Your task to perform on an android device: Open the Play Movies app and select the watchlist tab. Image 0: 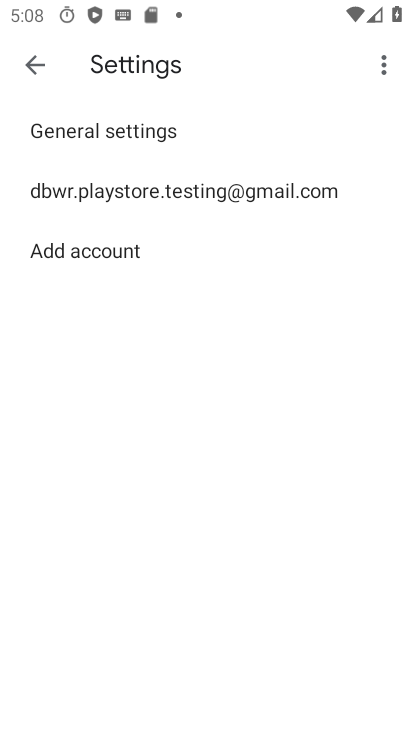
Step 0: press home button
Your task to perform on an android device: Open the Play Movies app and select the watchlist tab. Image 1: 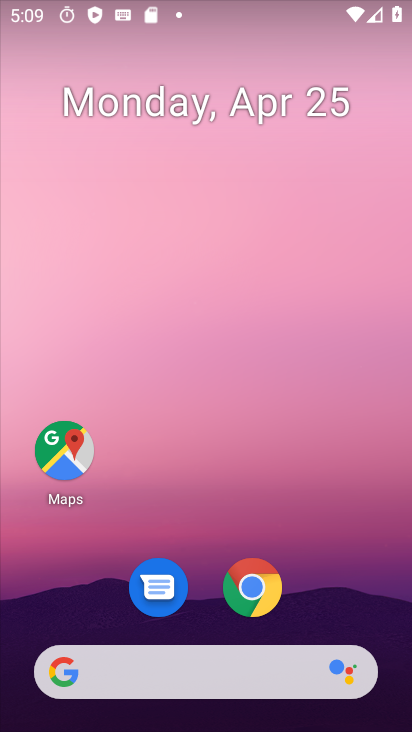
Step 1: drag from (330, 568) to (353, 70)
Your task to perform on an android device: Open the Play Movies app and select the watchlist tab. Image 2: 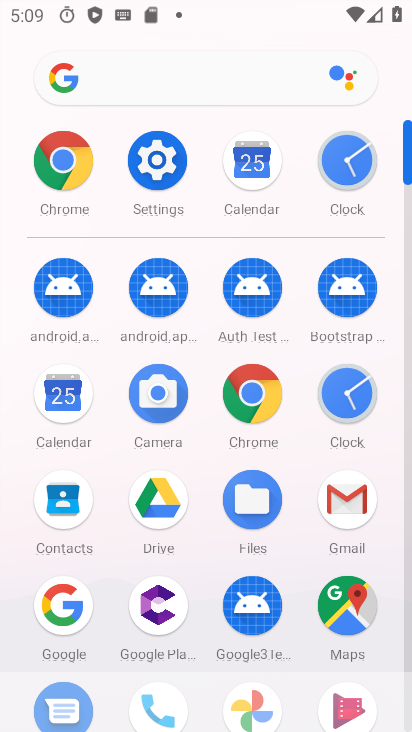
Step 2: drag from (305, 612) to (331, 281)
Your task to perform on an android device: Open the Play Movies app and select the watchlist tab. Image 3: 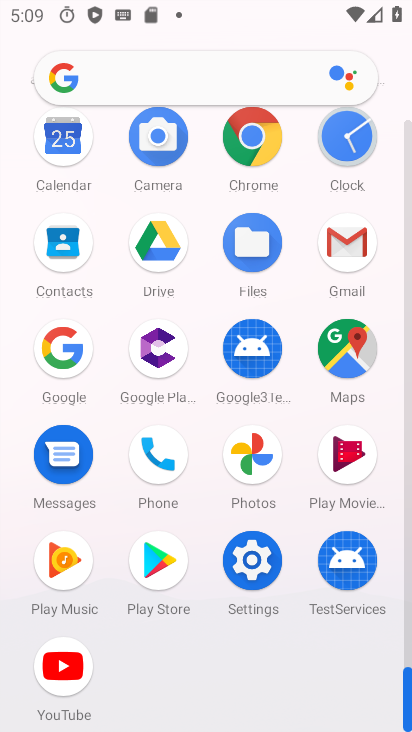
Step 3: click (353, 457)
Your task to perform on an android device: Open the Play Movies app and select the watchlist tab. Image 4: 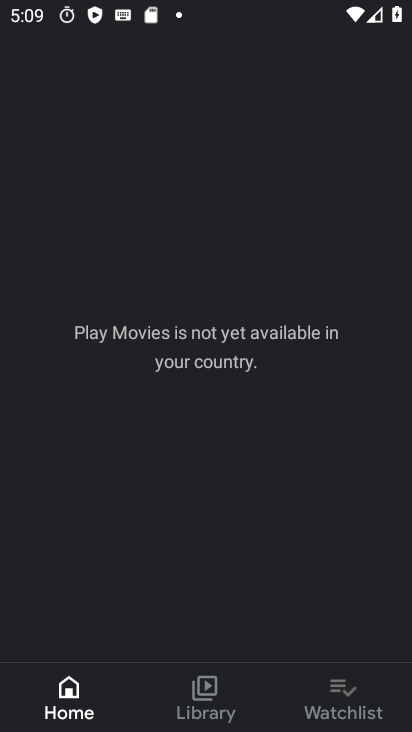
Step 4: click (343, 688)
Your task to perform on an android device: Open the Play Movies app and select the watchlist tab. Image 5: 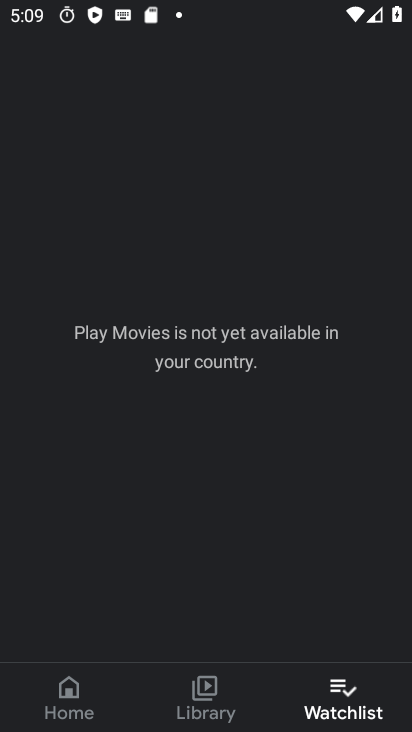
Step 5: task complete